Your task to perform on an android device: Open calendar and show me the second week of next month Image 0: 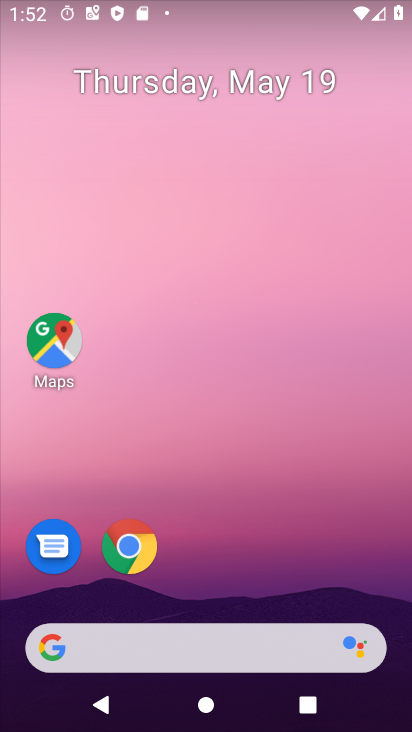
Step 0: click (136, 80)
Your task to perform on an android device: Open calendar and show me the second week of next month Image 1: 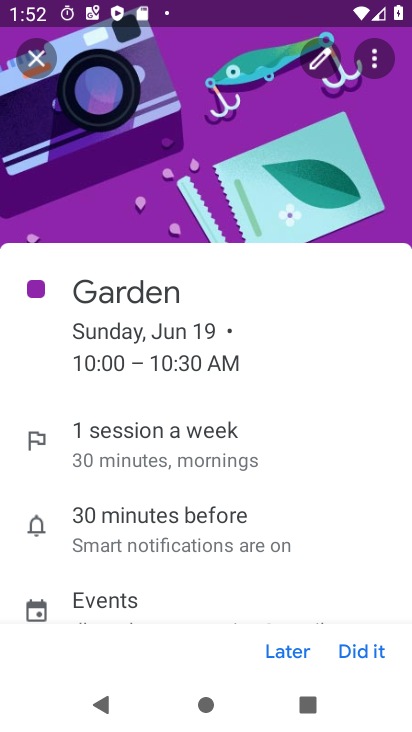
Step 1: click (31, 49)
Your task to perform on an android device: Open calendar and show me the second week of next month Image 2: 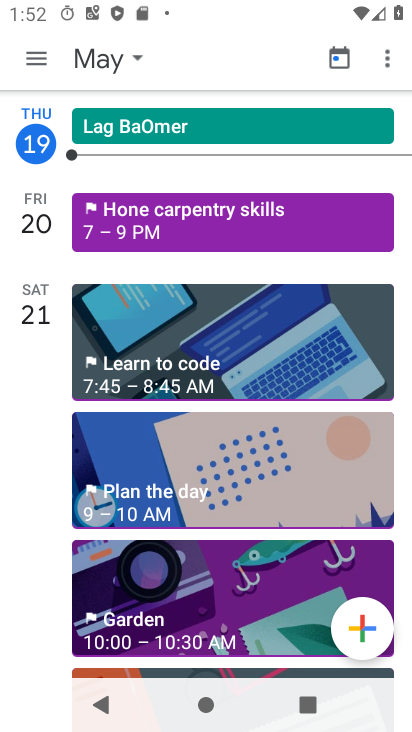
Step 2: click (117, 66)
Your task to perform on an android device: Open calendar and show me the second week of next month Image 3: 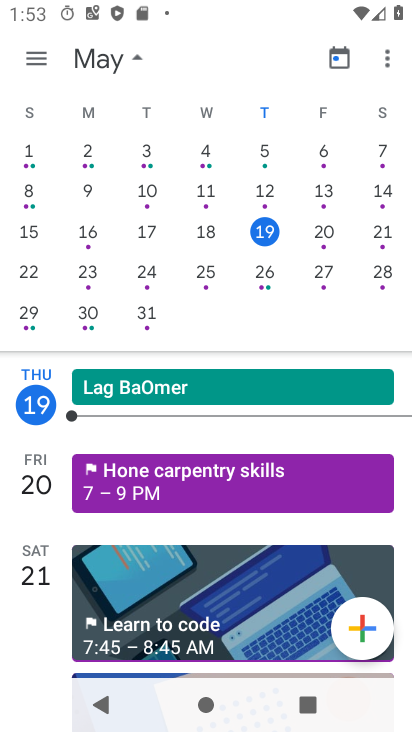
Step 3: drag from (314, 304) to (5, 388)
Your task to perform on an android device: Open calendar and show me the second week of next month Image 4: 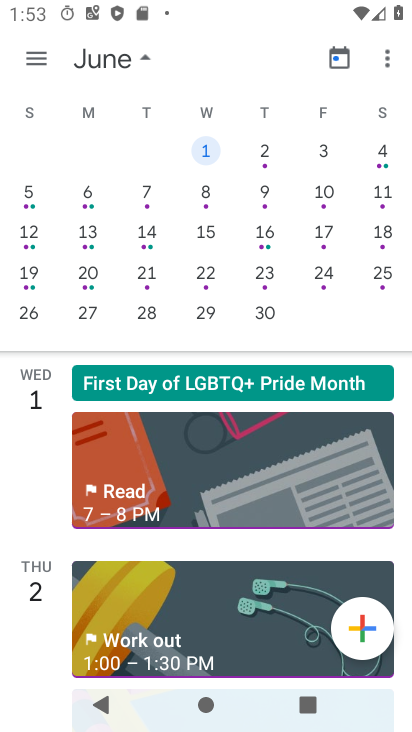
Step 4: click (203, 201)
Your task to perform on an android device: Open calendar and show me the second week of next month Image 5: 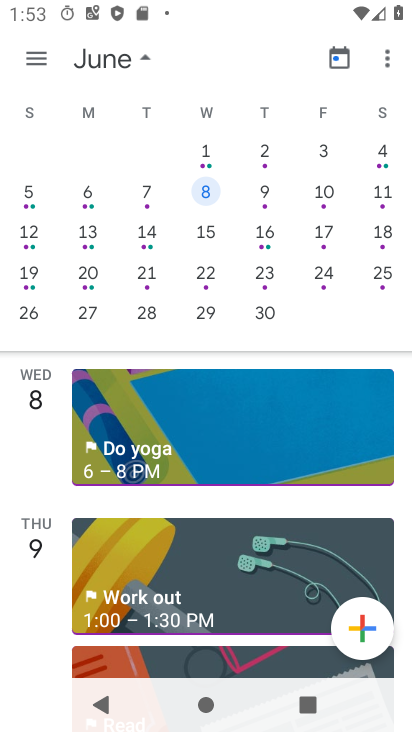
Step 5: task complete